Your task to perform on an android device: What's the weather going to be this weekend? Image 0: 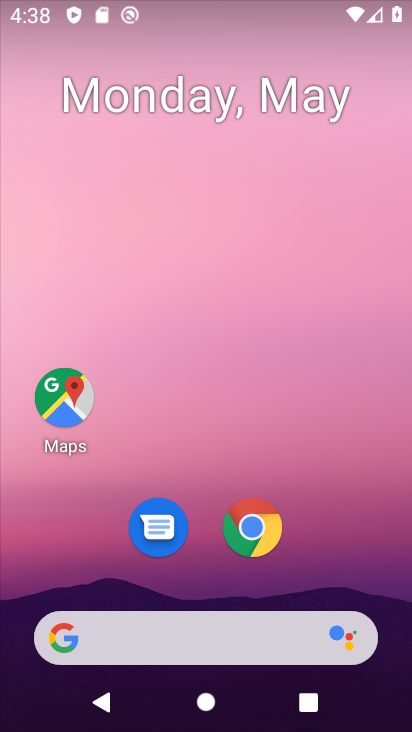
Step 0: drag from (0, 244) to (399, 280)
Your task to perform on an android device: What's the weather going to be this weekend? Image 1: 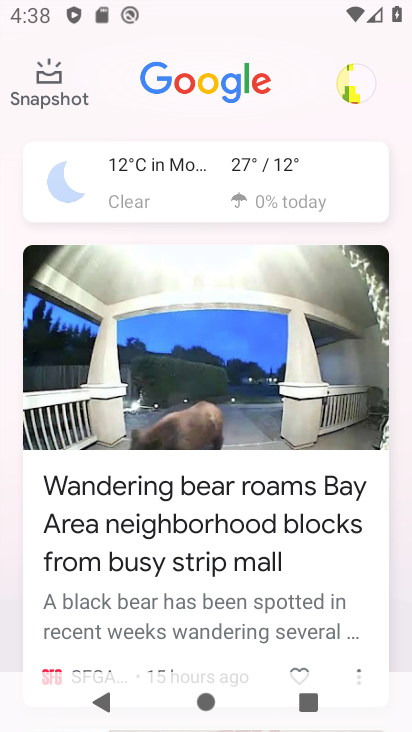
Step 1: click (249, 158)
Your task to perform on an android device: What's the weather going to be this weekend? Image 2: 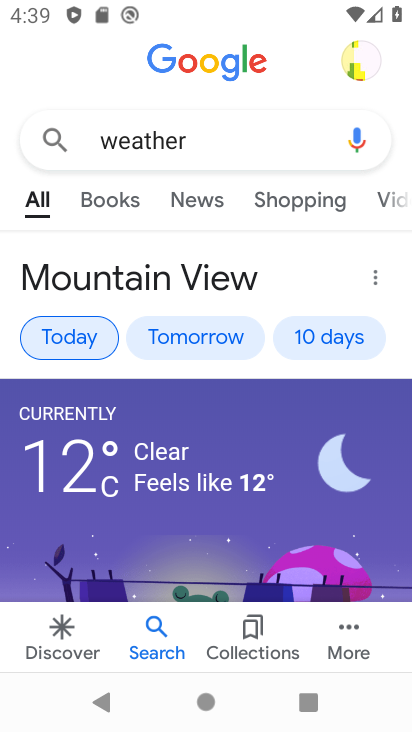
Step 2: click (345, 334)
Your task to perform on an android device: What's the weather going to be this weekend? Image 3: 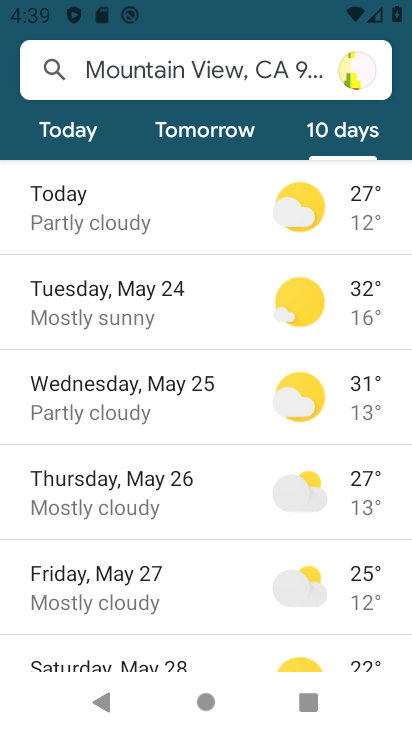
Step 3: task complete